Your task to perform on an android device: Do I have any events today? Image 0: 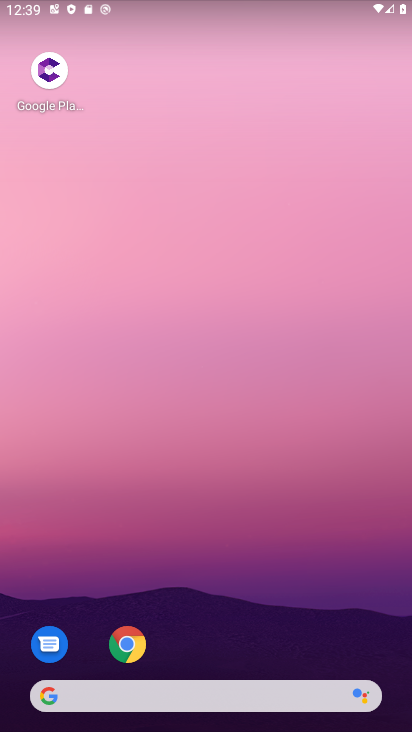
Step 0: drag from (196, 568) to (227, 100)
Your task to perform on an android device: Do I have any events today? Image 1: 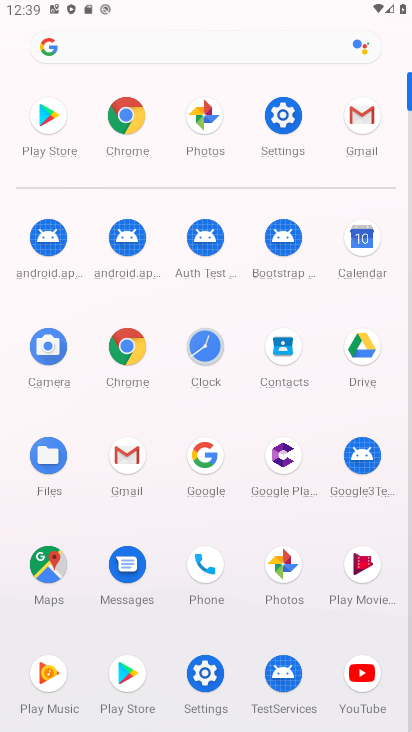
Step 1: click (368, 266)
Your task to perform on an android device: Do I have any events today? Image 2: 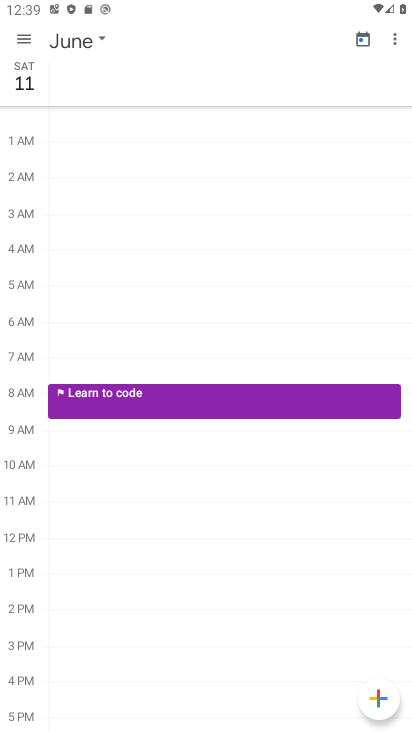
Step 2: task complete